Your task to perform on an android device: install app "Lyft - Rideshare, Bikes, Scooters & Transit" Image 0: 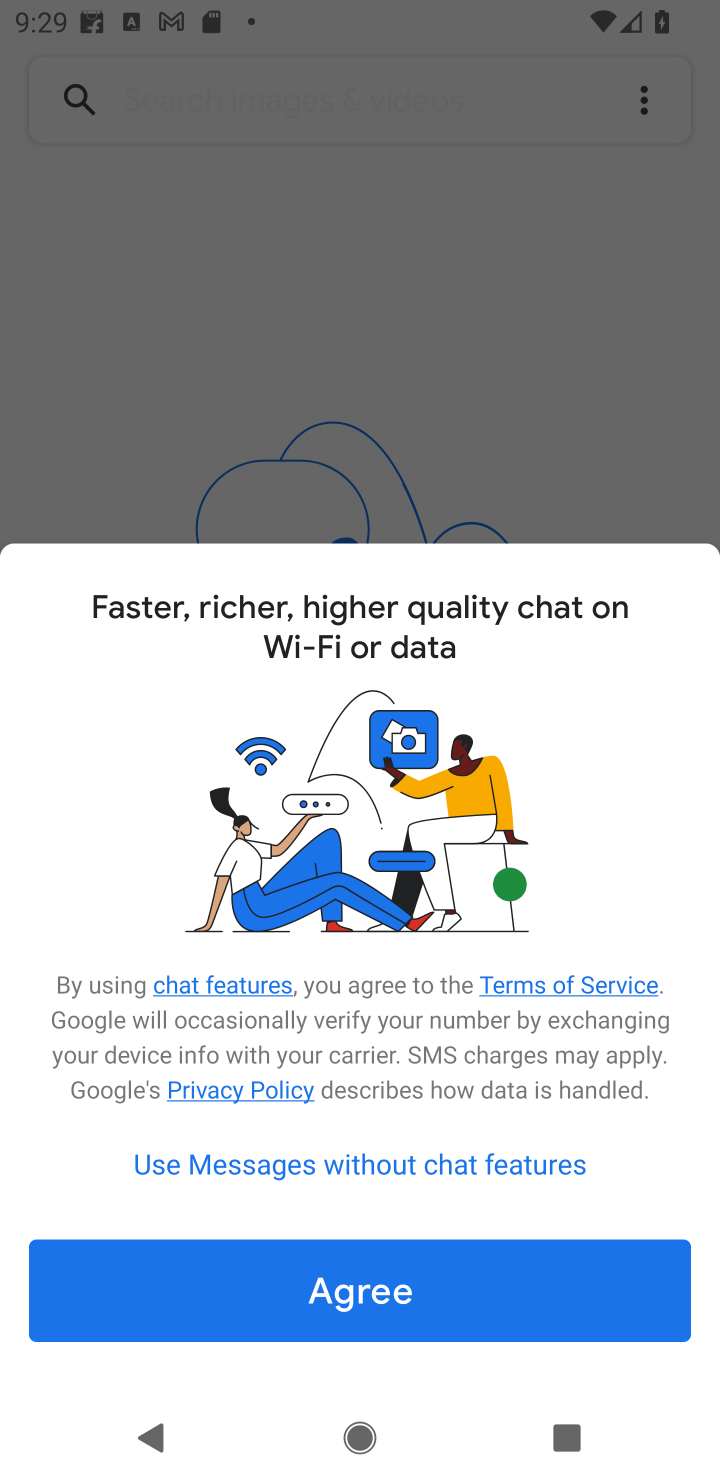
Step 0: press home button
Your task to perform on an android device: install app "Lyft - Rideshare, Bikes, Scooters & Transit" Image 1: 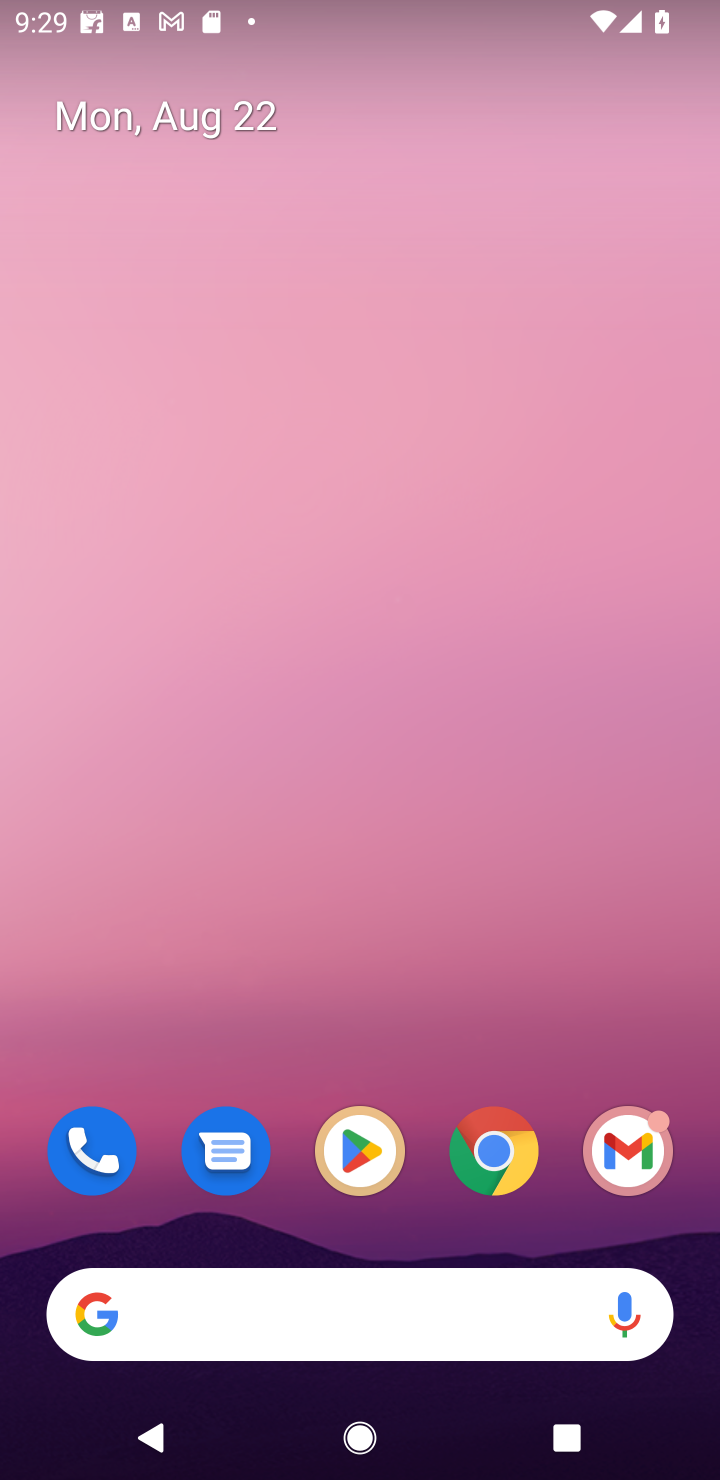
Step 1: click (343, 1141)
Your task to perform on an android device: install app "Lyft - Rideshare, Bikes, Scooters & Transit" Image 2: 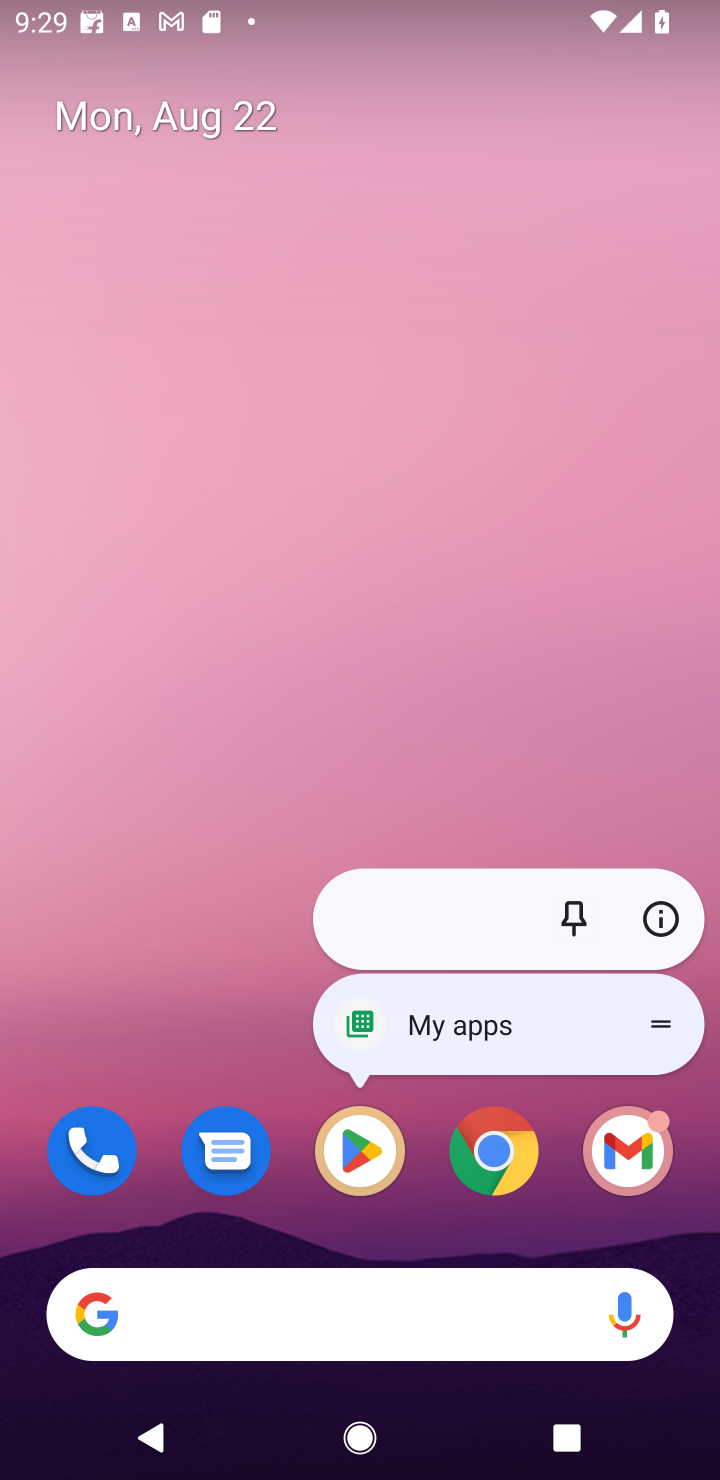
Step 2: click (343, 1158)
Your task to perform on an android device: install app "Lyft - Rideshare, Bikes, Scooters & Transit" Image 3: 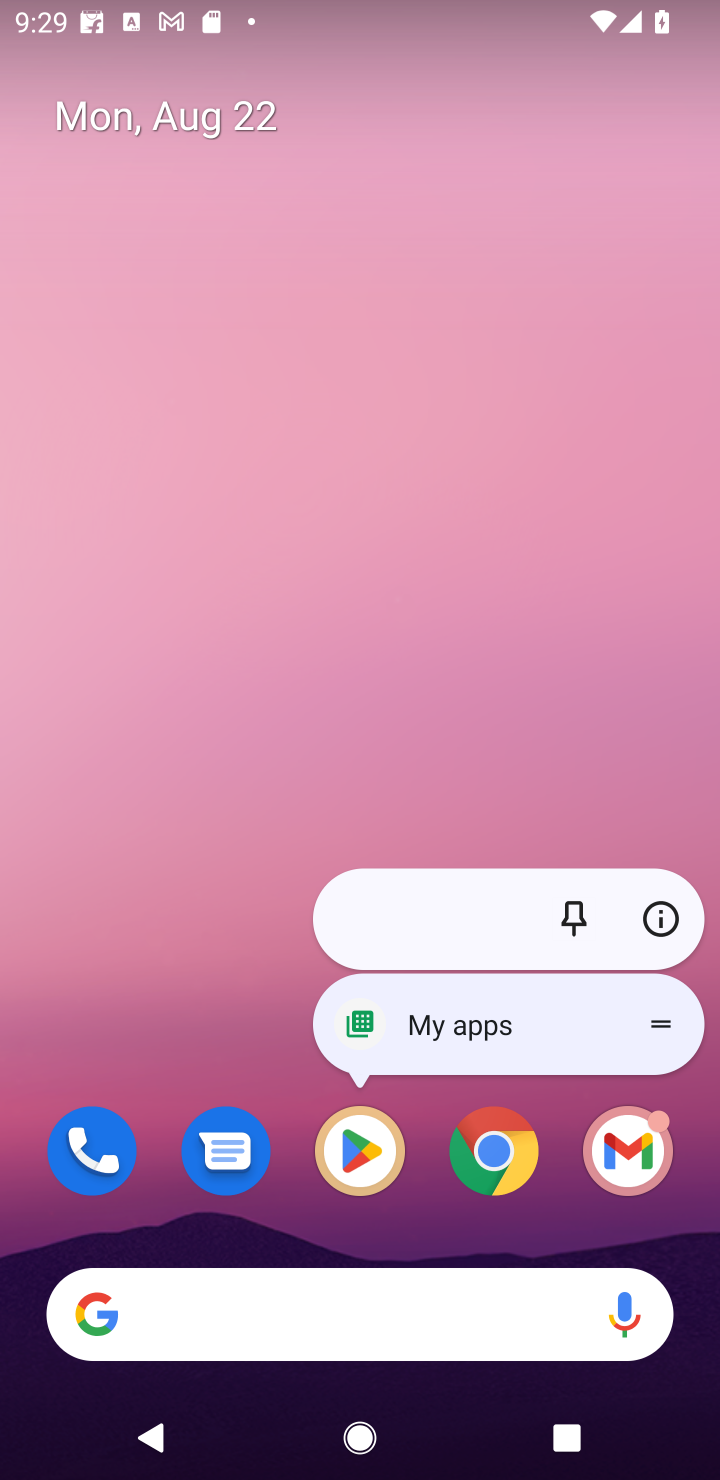
Step 3: click (343, 1158)
Your task to perform on an android device: install app "Lyft - Rideshare, Bikes, Scooters & Transit" Image 4: 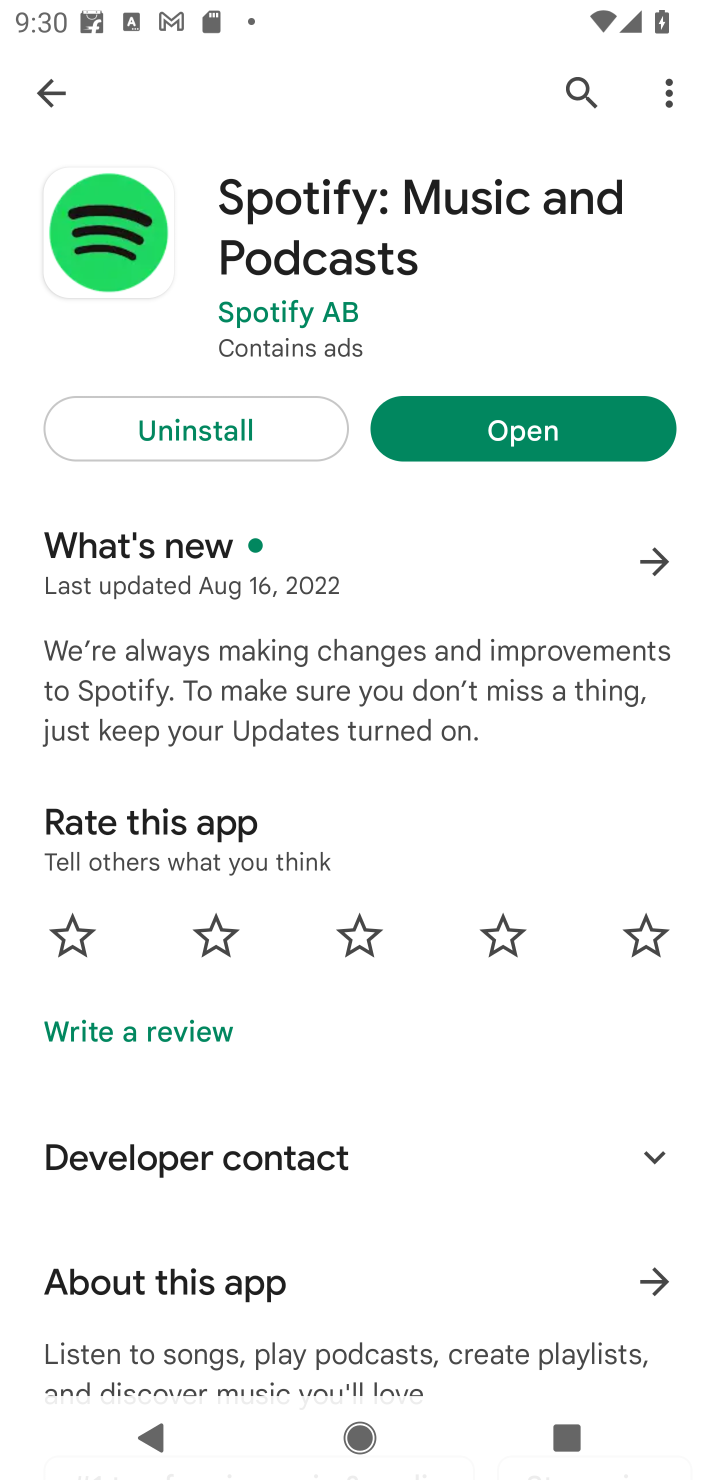
Step 4: click (576, 89)
Your task to perform on an android device: install app "Lyft - Rideshare, Bikes, Scooters & Transit" Image 5: 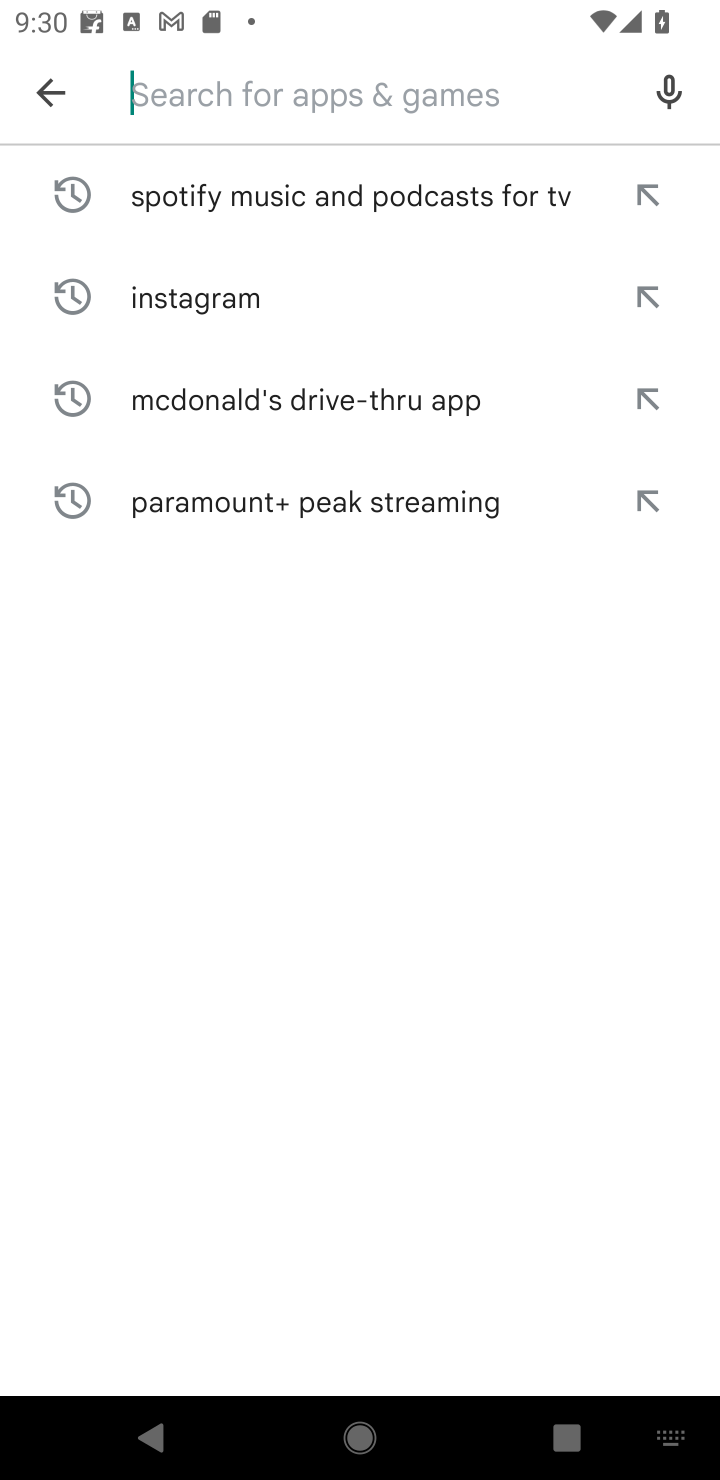
Step 5: type "Lyft - Rideshare, Bikes, Scooters & Transit"
Your task to perform on an android device: install app "Lyft - Rideshare, Bikes, Scooters & Transit" Image 6: 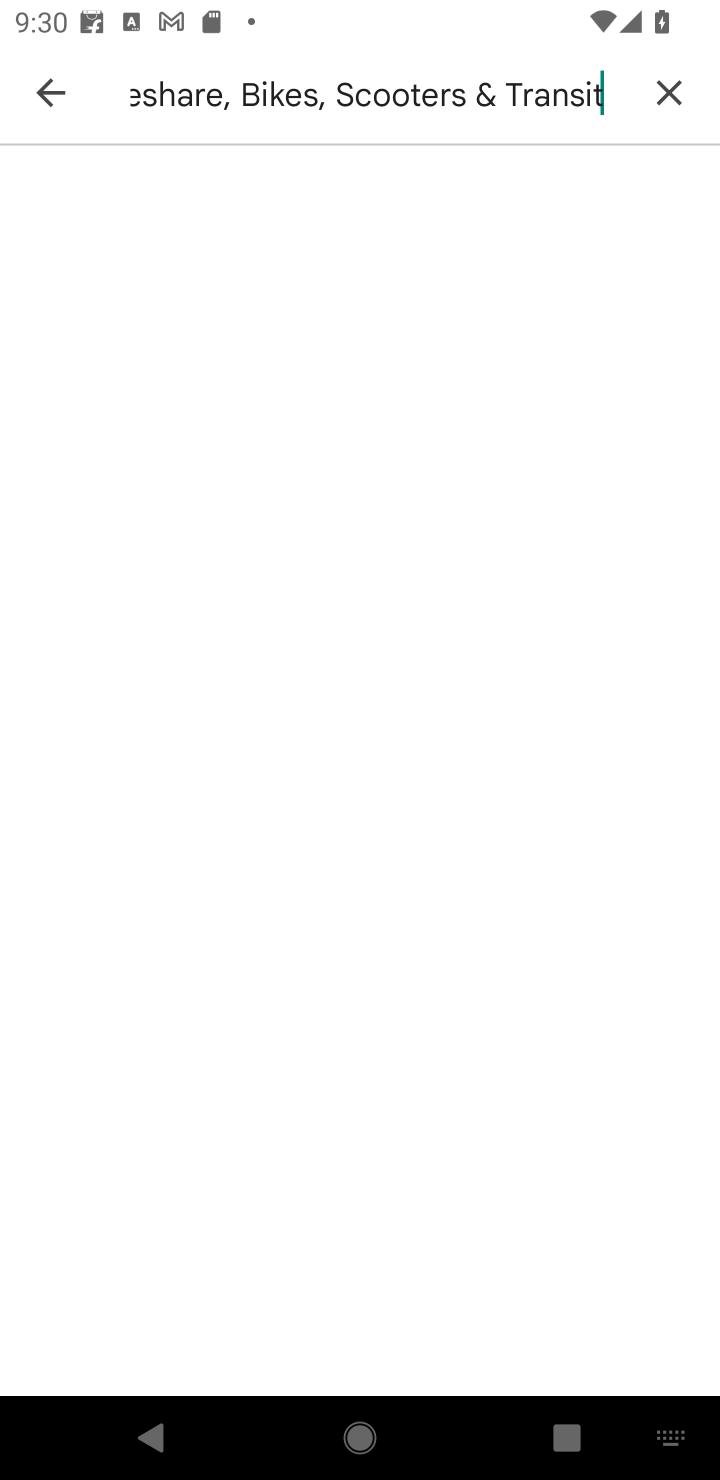
Step 6: click (667, 76)
Your task to perform on an android device: install app "Lyft - Rideshare, Bikes, Scooters & Transit" Image 7: 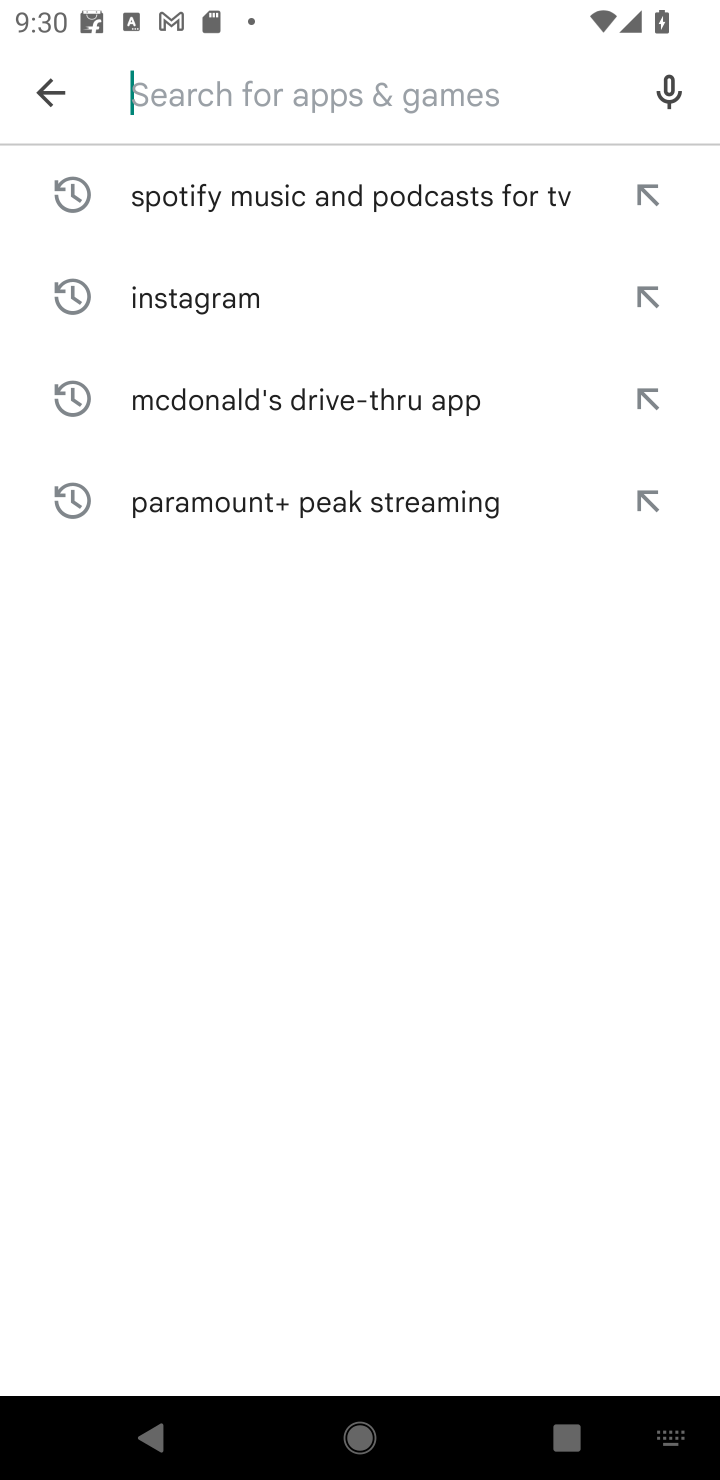
Step 7: type "Lyft Rideshare, Bikes, Scooters & Transit"
Your task to perform on an android device: install app "Lyft - Rideshare, Bikes, Scooters & Transit" Image 8: 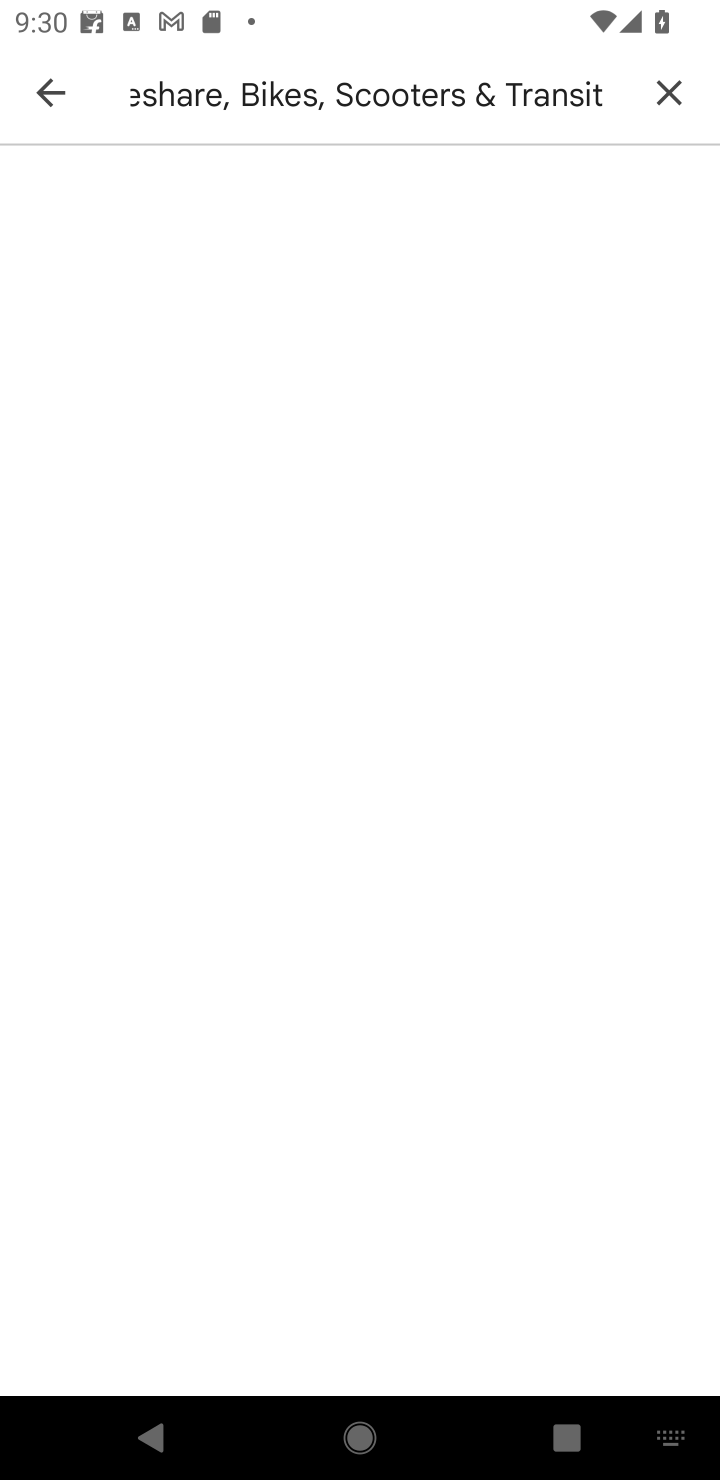
Step 8: task complete